Your task to perform on an android device: install app "Adobe Acrobat Reader" Image 0: 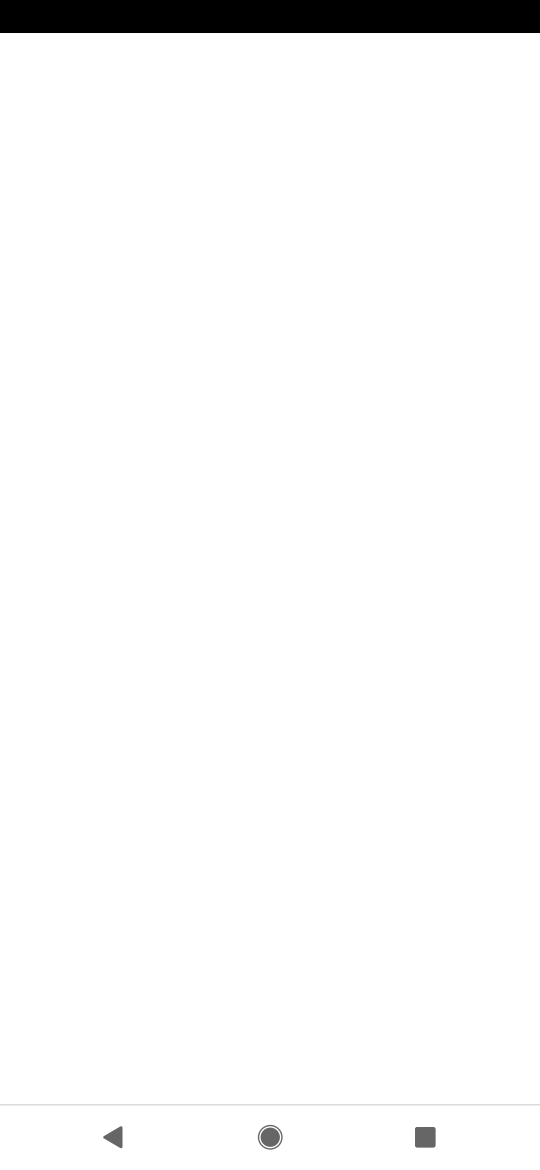
Step 0: click (529, 418)
Your task to perform on an android device: install app "Adobe Acrobat Reader" Image 1: 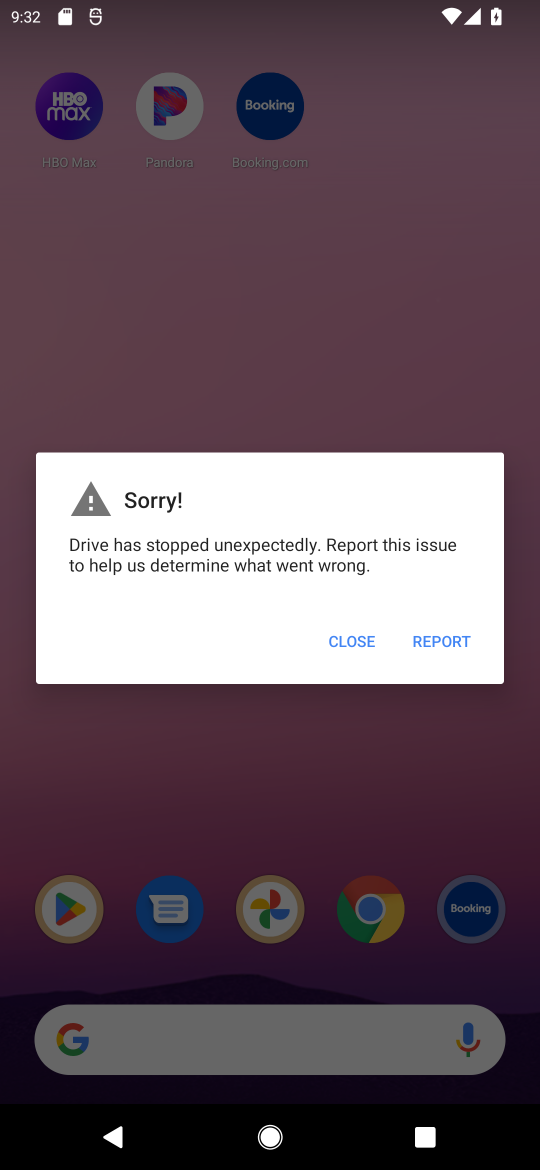
Step 1: click (352, 645)
Your task to perform on an android device: install app "Adobe Acrobat Reader" Image 2: 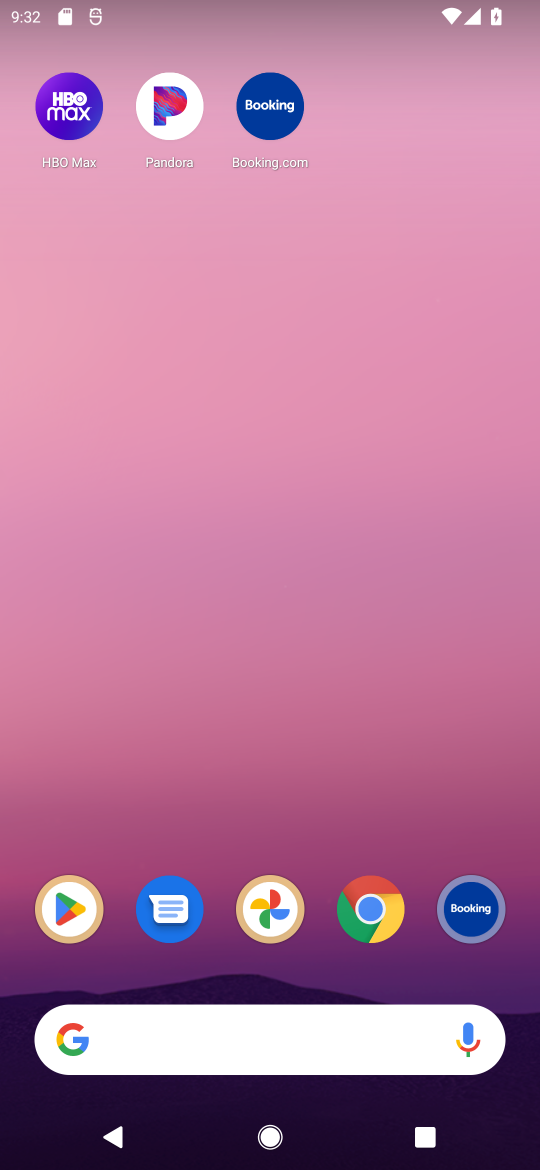
Step 2: click (59, 912)
Your task to perform on an android device: install app "Adobe Acrobat Reader" Image 3: 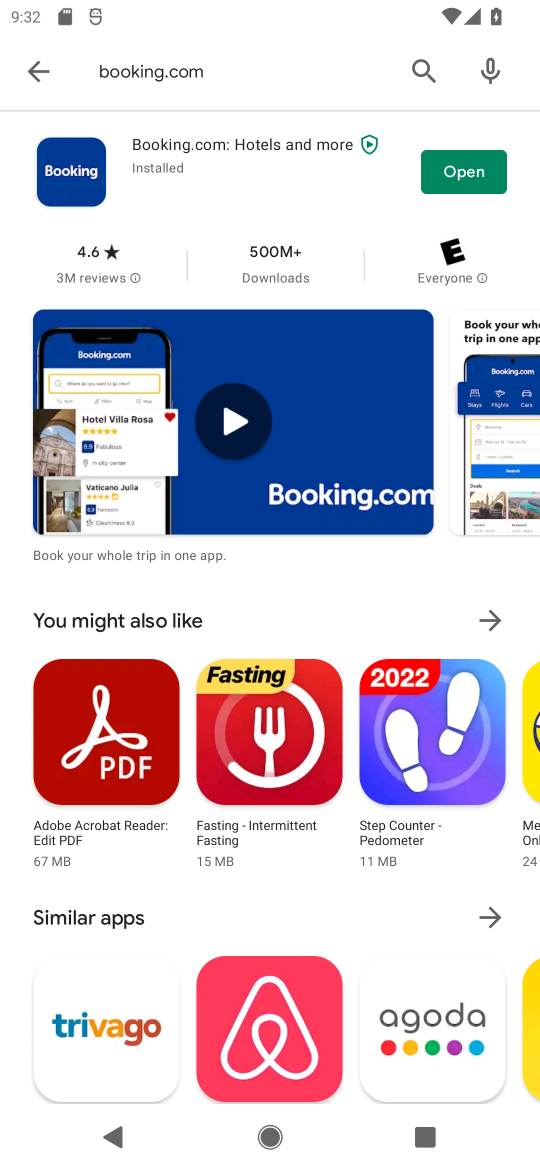
Step 3: click (234, 66)
Your task to perform on an android device: install app "Adobe Acrobat Reader" Image 4: 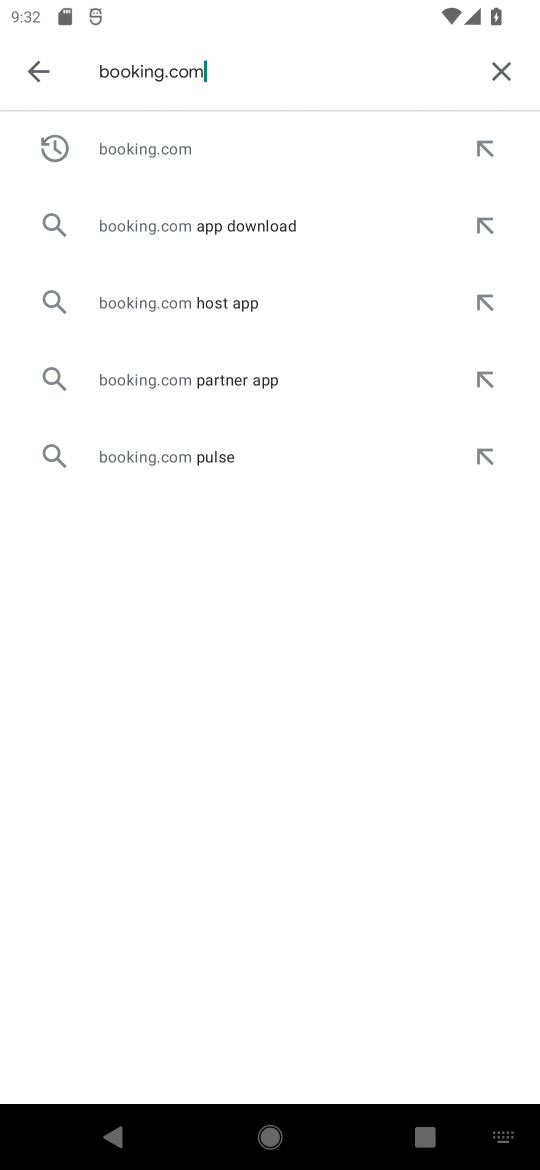
Step 4: click (495, 65)
Your task to perform on an android device: install app "Adobe Acrobat Reader" Image 5: 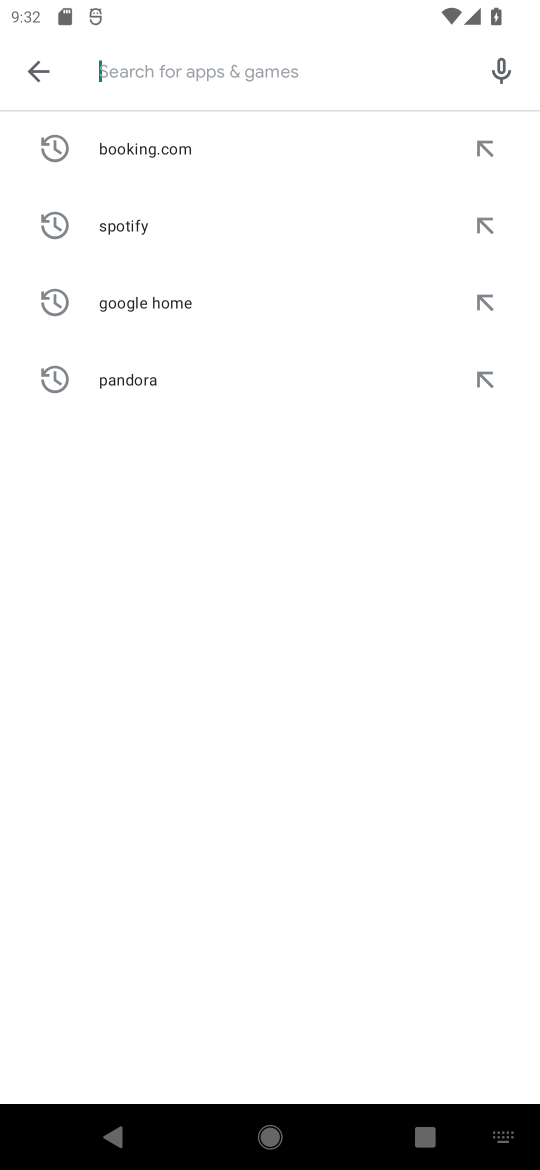
Step 5: type "adobe acrobat reader"
Your task to perform on an android device: install app "Adobe Acrobat Reader" Image 6: 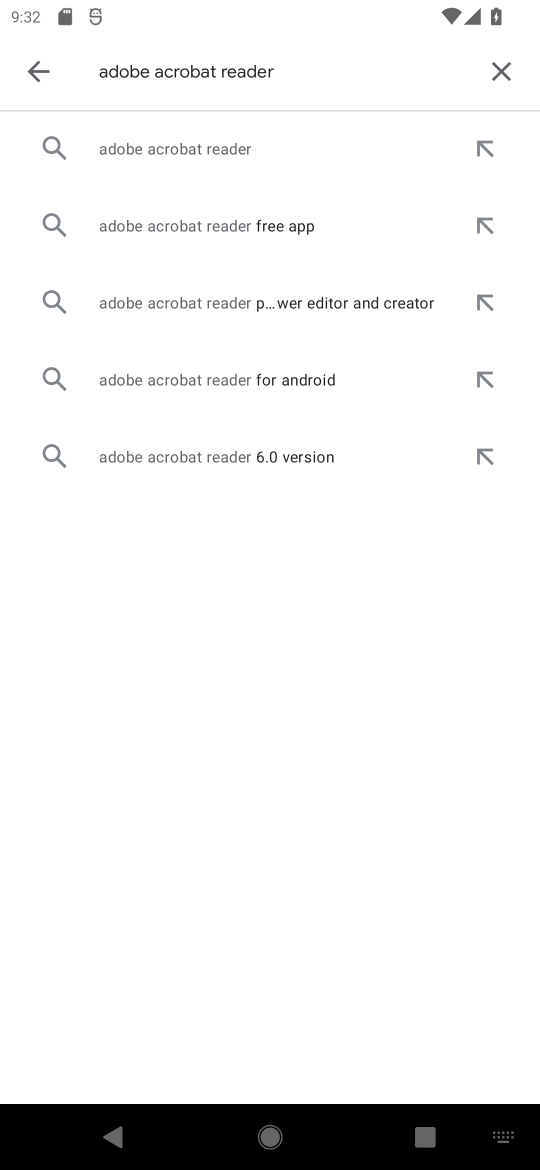
Step 6: click (213, 155)
Your task to perform on an android device: install app "Adobe Acrobat Reader" Image 7: 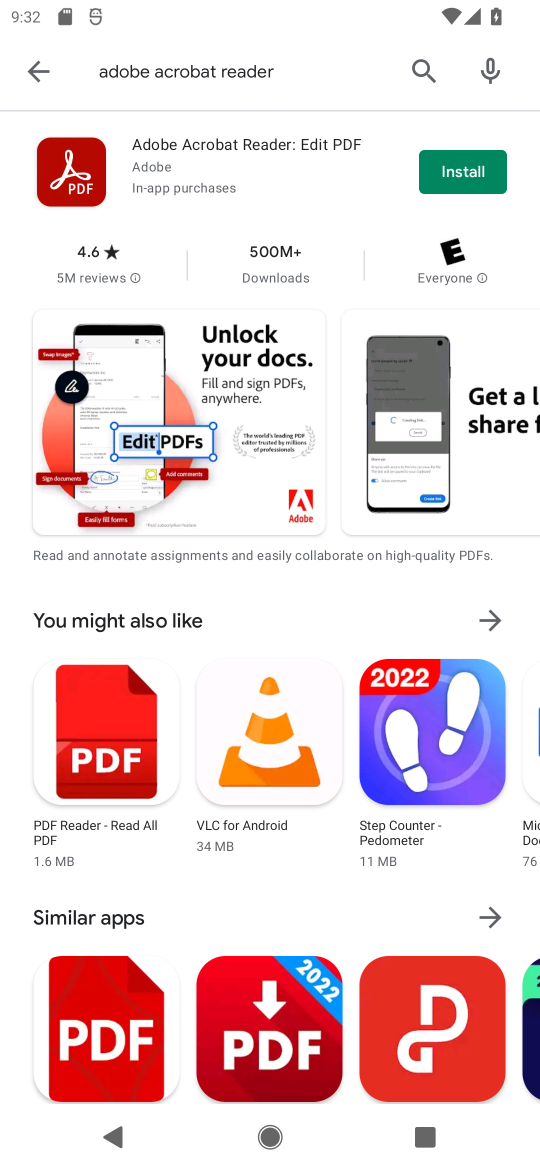
Step 7: click (478, 177)
Your task to perform on an android device: install app "Adobe Acrobat Reader" Image 8: 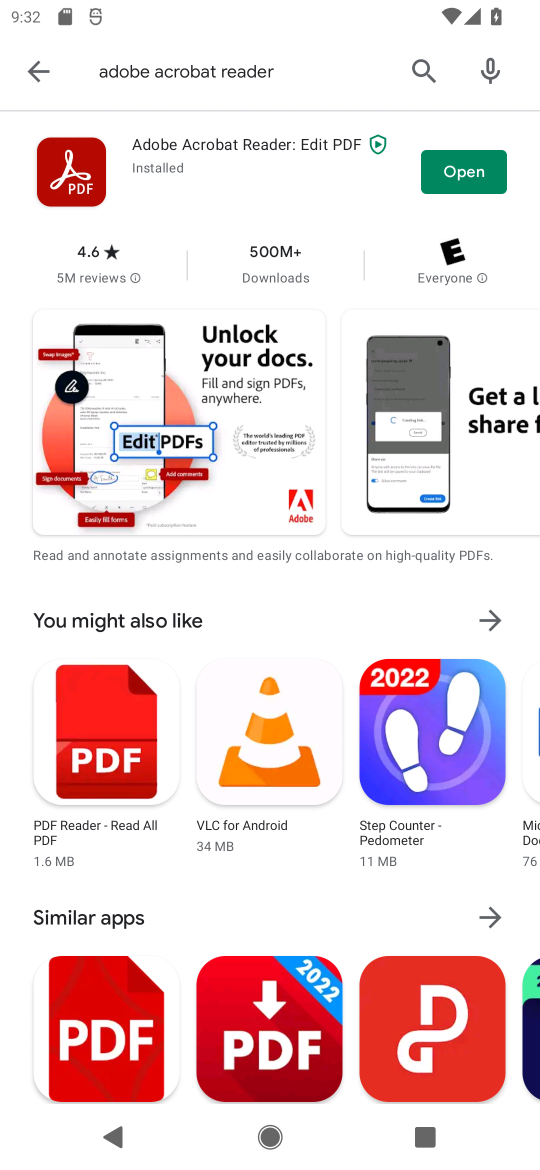
Step 8: task complete